Your task to perform on an android device: open chrome privacy settings Image 0: 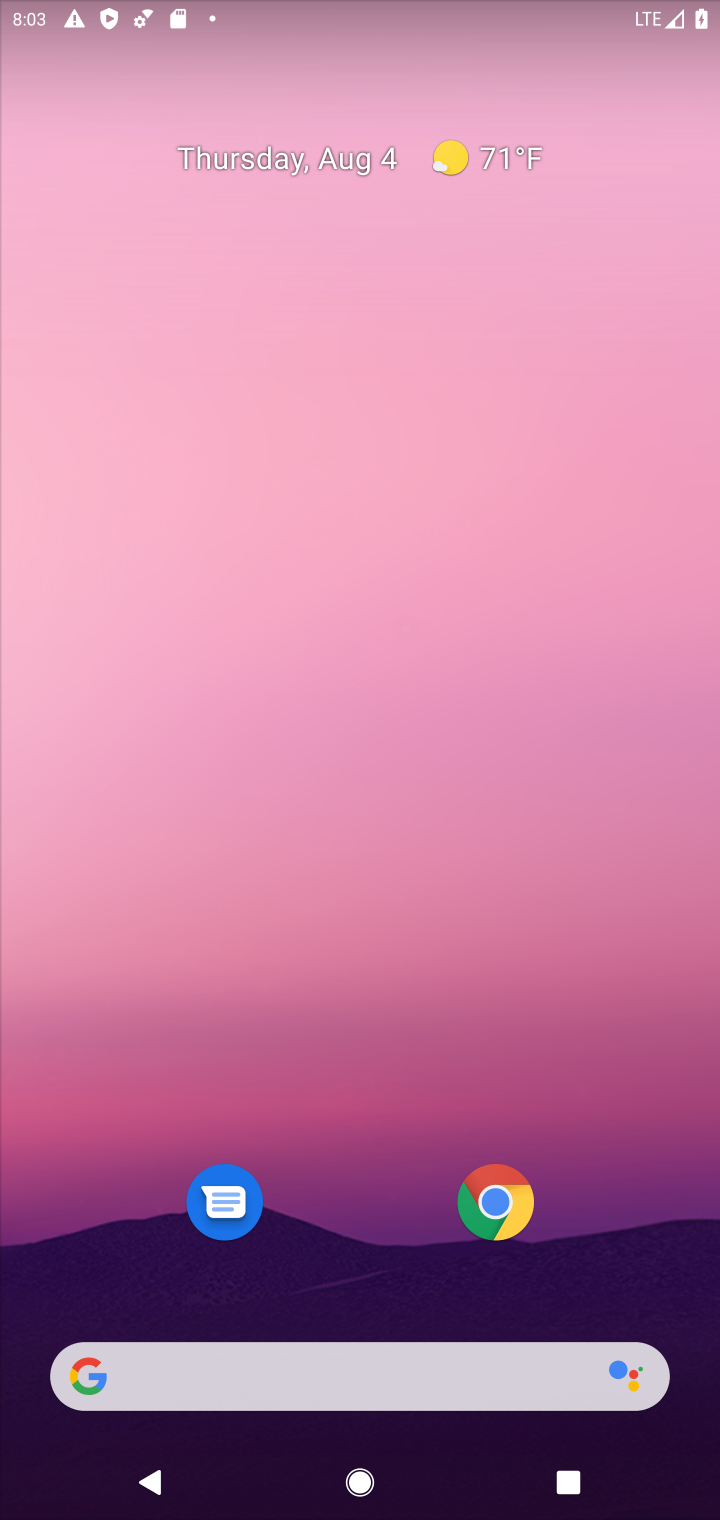
Step 0: click (530, 1189)
Your task to perform on an android device: open chrome privacy settings Image 1: 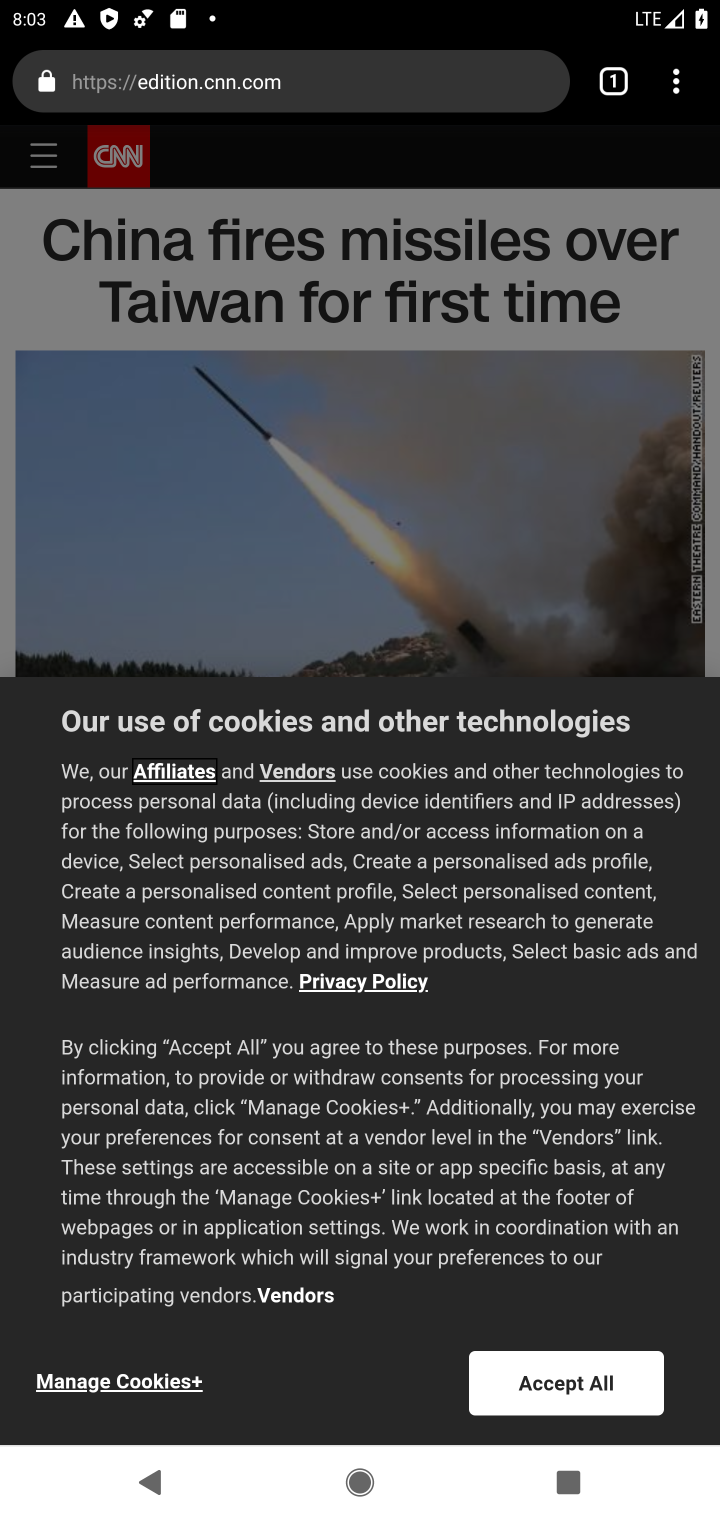
Step 1: click (682, 89)
Your task to perform on an android device: open chrome privacy settings Image 2: 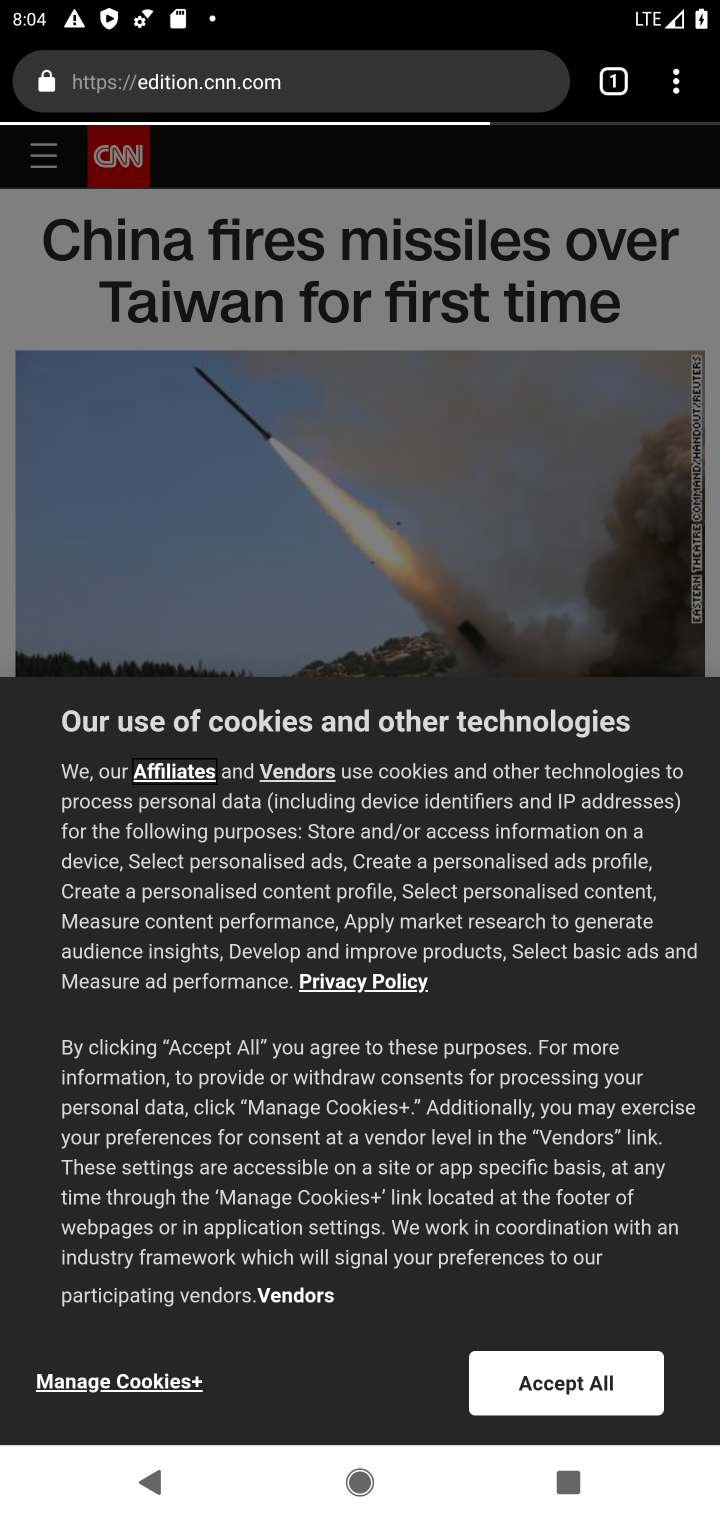
Step 2: drag from (675, 98) to (430, 907)
Your task to perform on an android device: open chrome privacy settings Image 3: 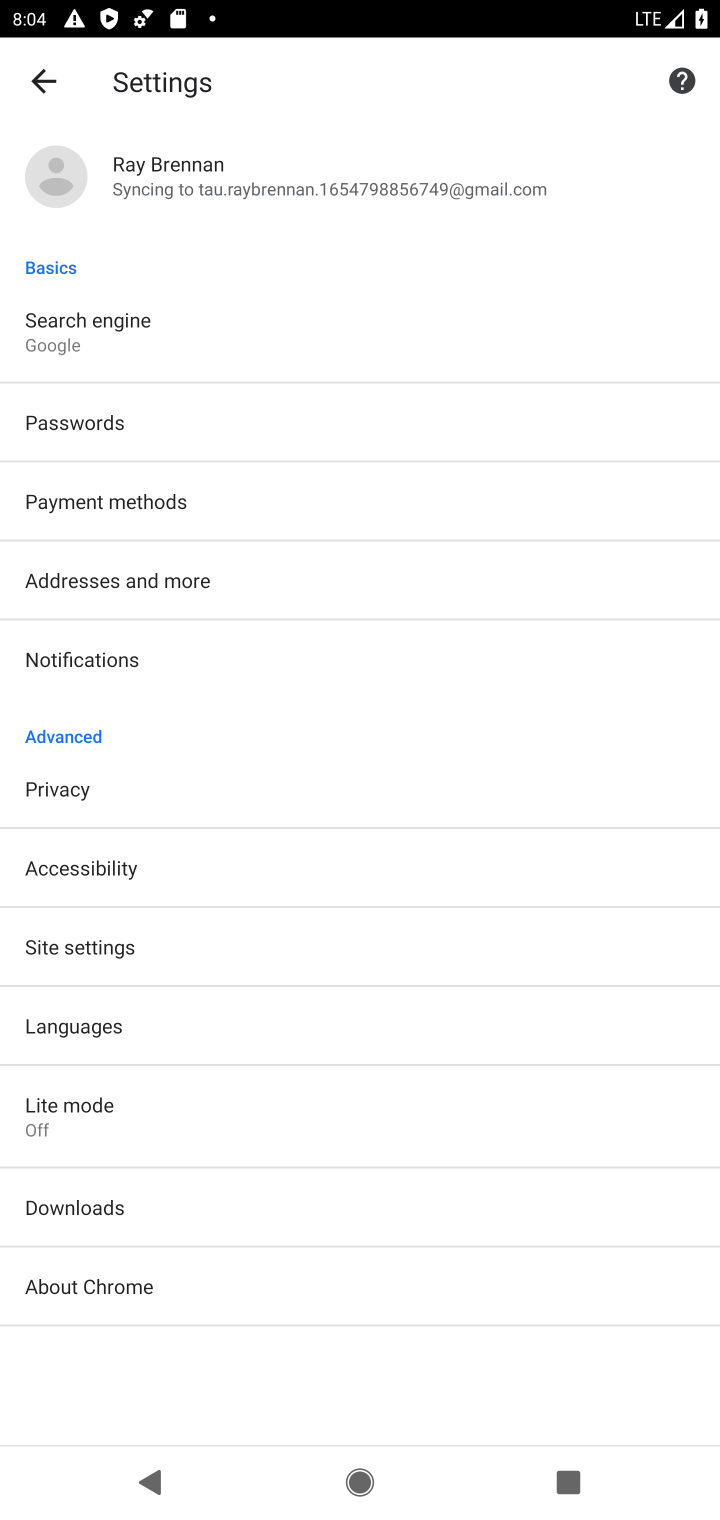
Step 3: click (115, 802)
Your task to perform on an android device: open chrome privacy settings Image 4: 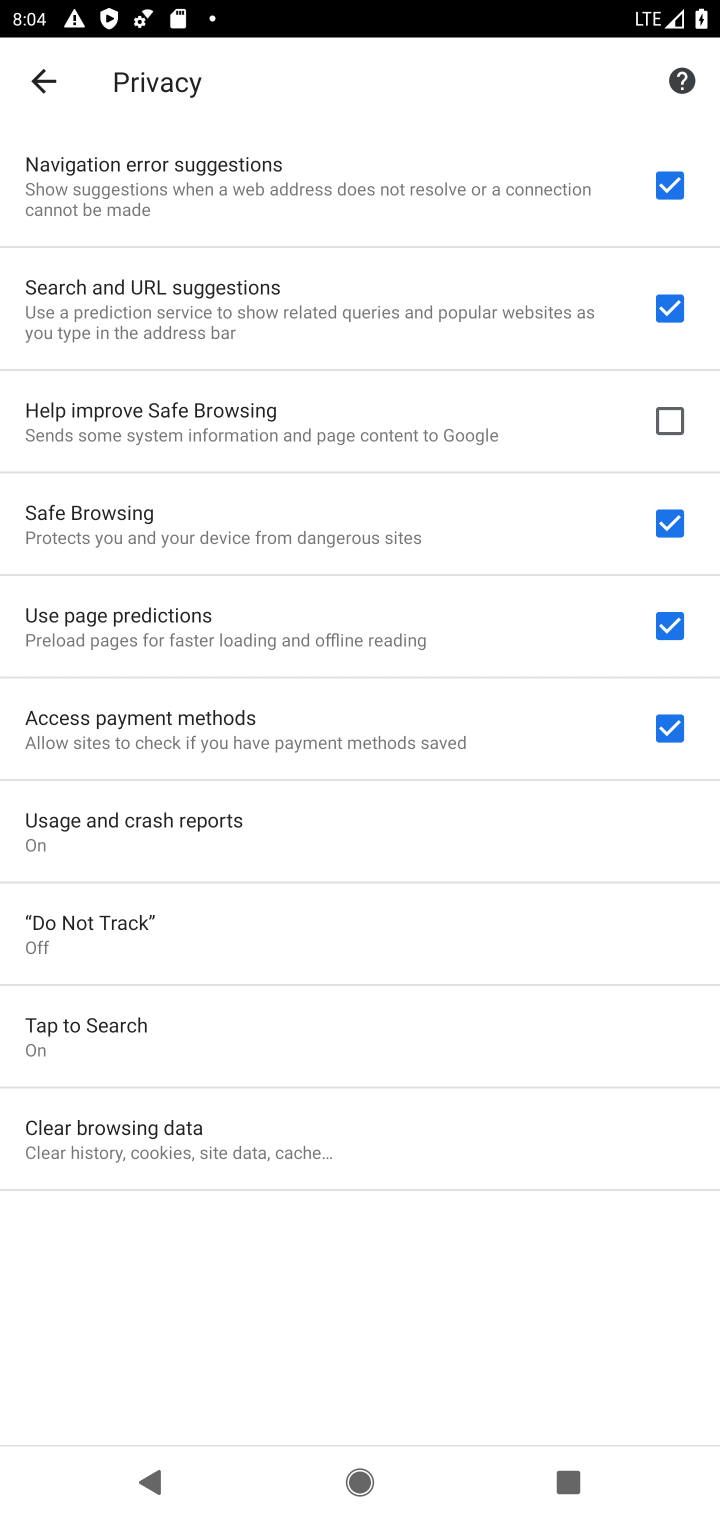
Step 4: task complete